Your task to perform on an android device: Go to Wikipedia Image 0: 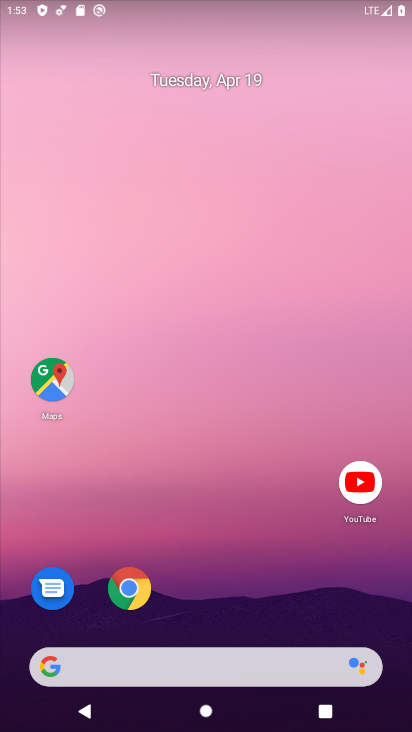
Step 0: click (138, 594)
Your task to perform on an android device: Go to Wikipedia Image 1: 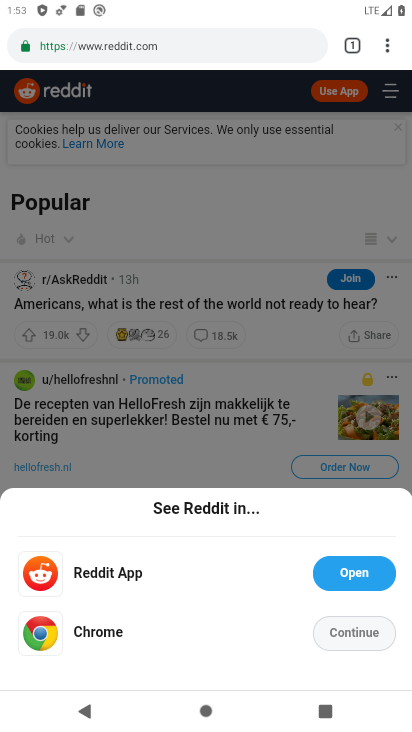
Step 1: click (191, 47)
Your task to perform on an android device: Go to Wikipedia Image 2: 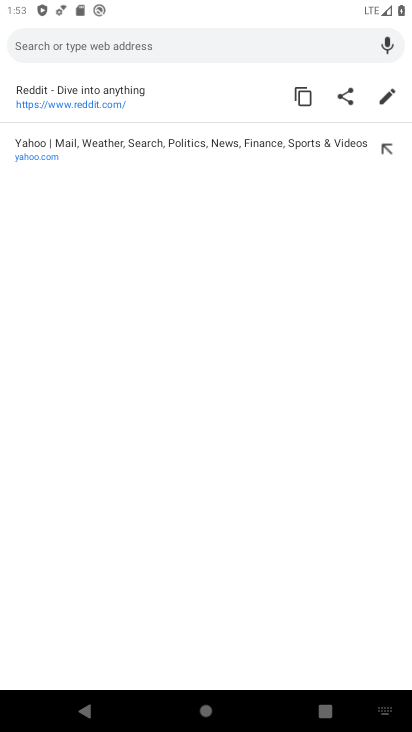
Step 2: type "wikipedia"
Your task to perform on an android device: Go to Wikipedia Image 3: 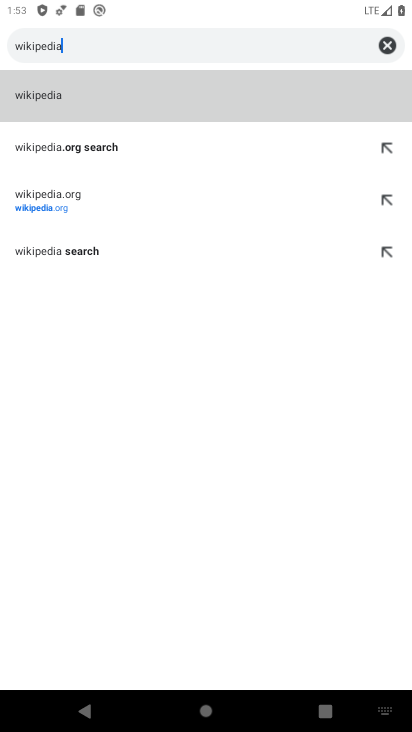
Step 3: click (62, 105)
Your task to perform on an android device: Go to Wikipedia Image 4: 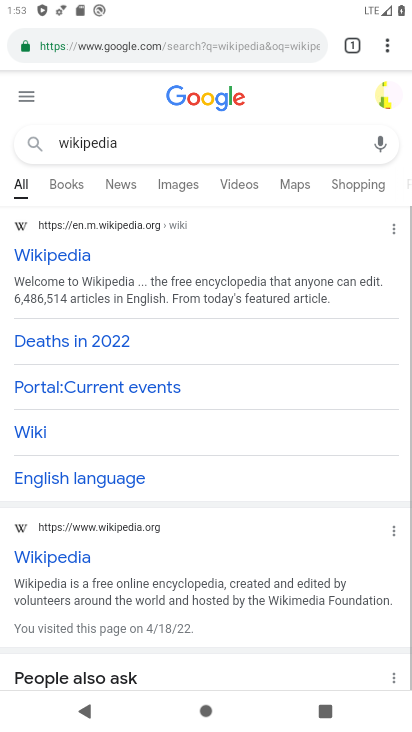
Step 4: click (70, 264)
Your task to perform on an android device: Go to Wikipedia Image 5: 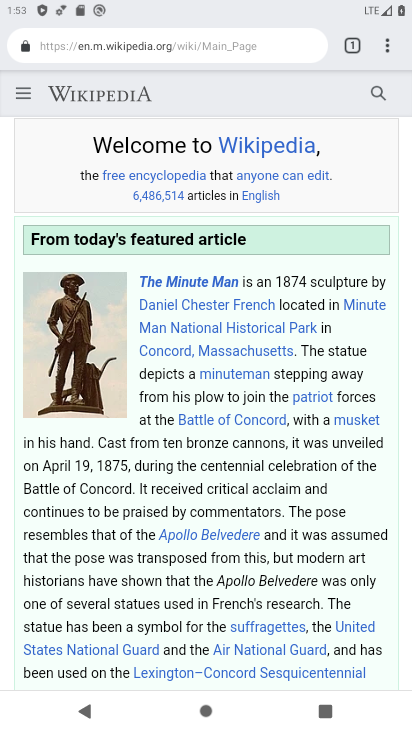
Step 5: task complete